Your task to perform on an android device: turn off improve location accuracy Image 0: 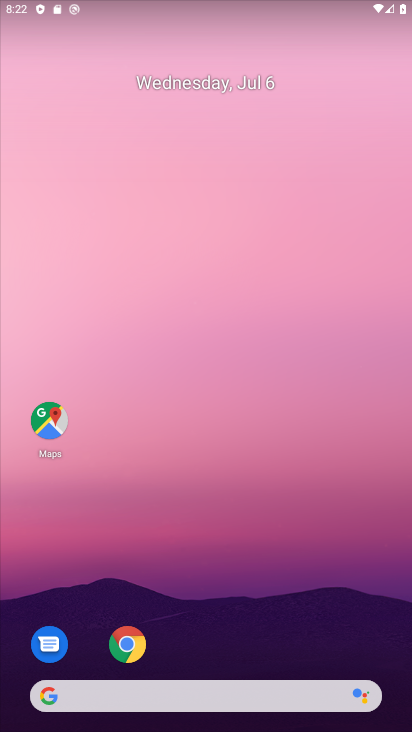
Step 0: drag from (223, 409) to (230, 136)
Your task to perform on an android device: turn off improve location accuracy Image 1: 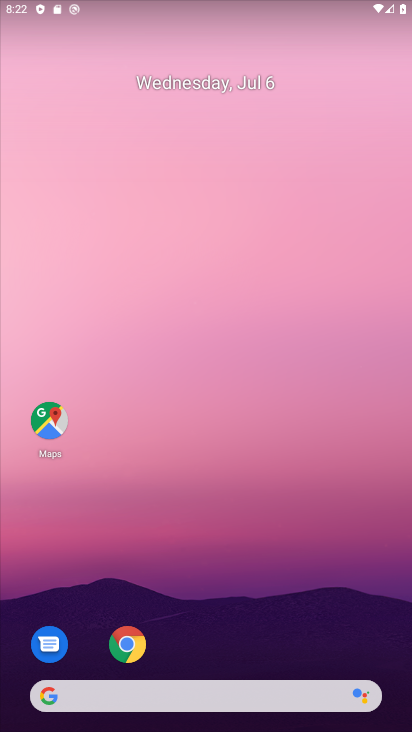
Step 1: drag from (215, 651) to (211, 107)
Your task to perform on an android device: turn off improve location accuracy Image 2: 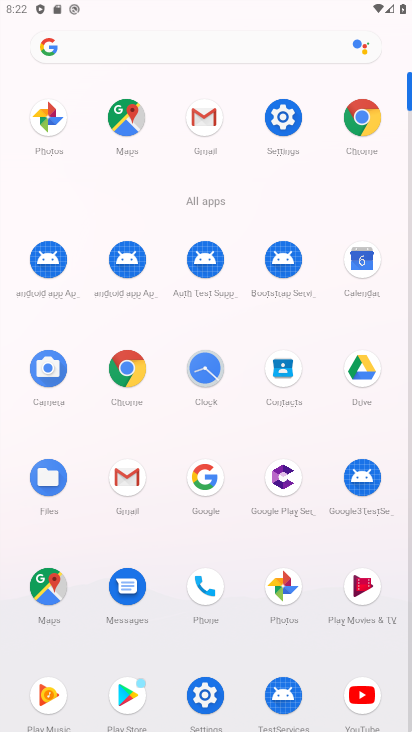
Step 2: click (279, 138)
Your task to perform on an android device: turn off improve location accuracy Image 3: 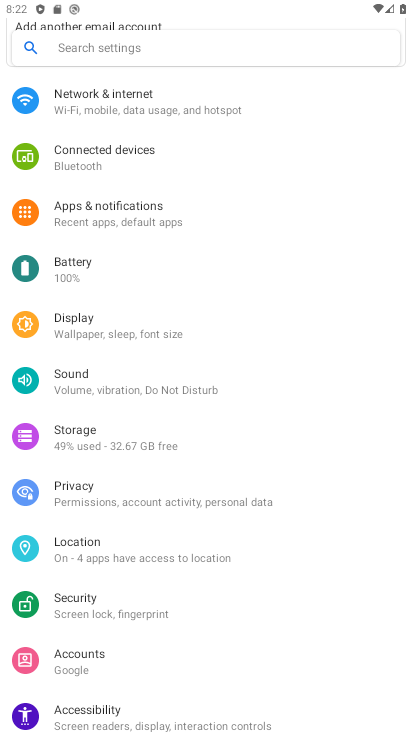
Step 3: click (103, 565)
Your task to perform on an android device: turn off improve location accuracy Image 4: 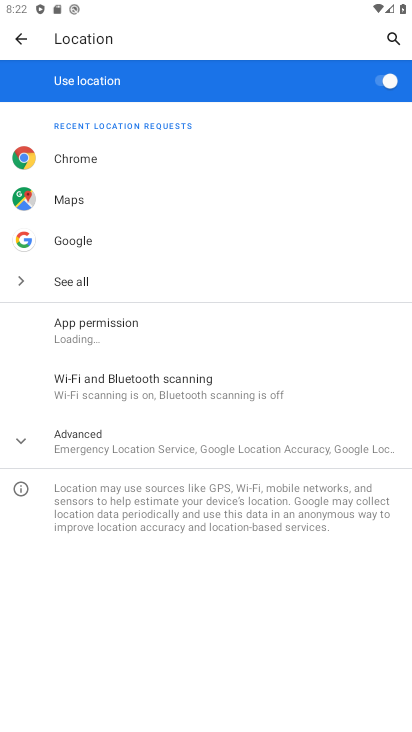
Step 4: click (139, 445)
Your task to perform on an android device: turn off improve location accuracy Image 5: 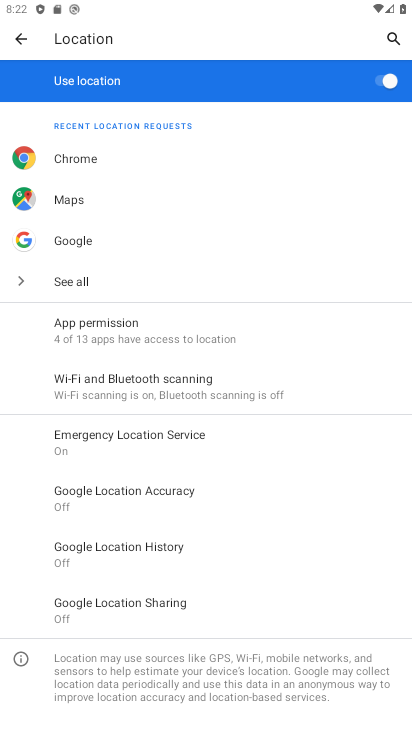
Step 5: click (160, 499)
Your task to perform on an android device: turn off improve location accuracy Image 6: 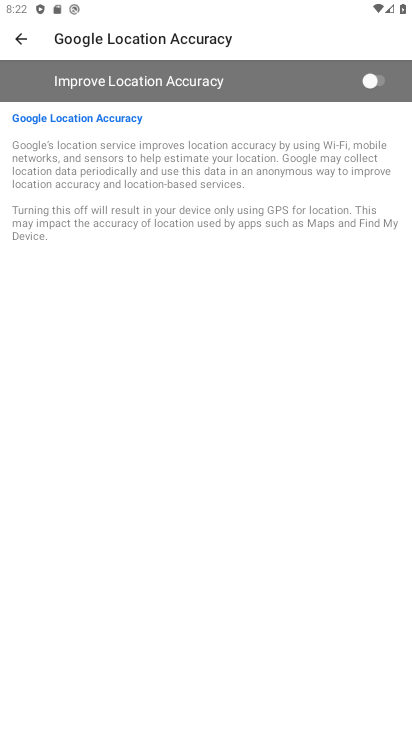
Step 6: task complete